Your task to perform on an android device: add a contact Image 0: 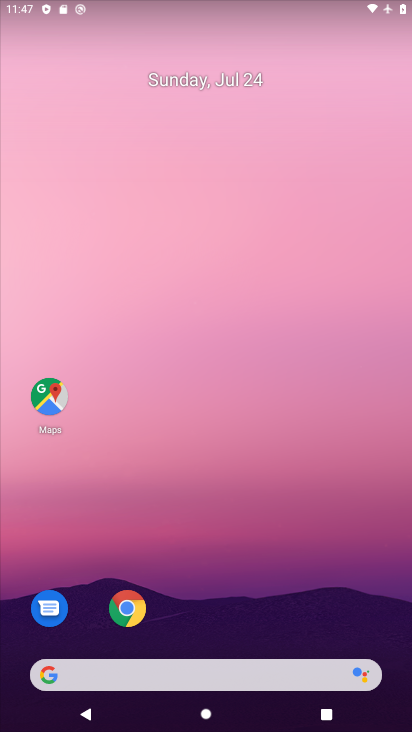
Step 0: press home button
Your task to perform on an android device: add a contact Image 1: 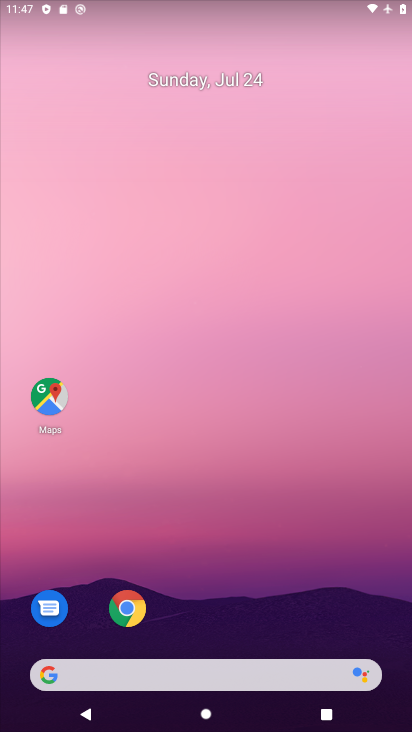
Step 1: drag from (234, 658) to (299, 128)
Your task to perform on an android device: add a contact Image 2: 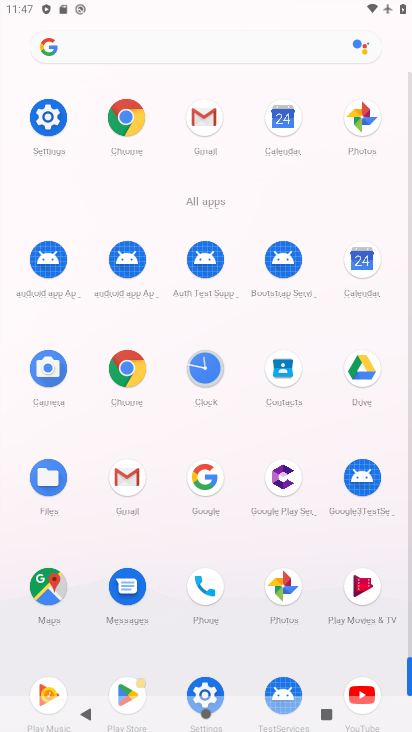
Step 2: click (286, 381)
Your task to perform on an android device: add a contact Image 3: 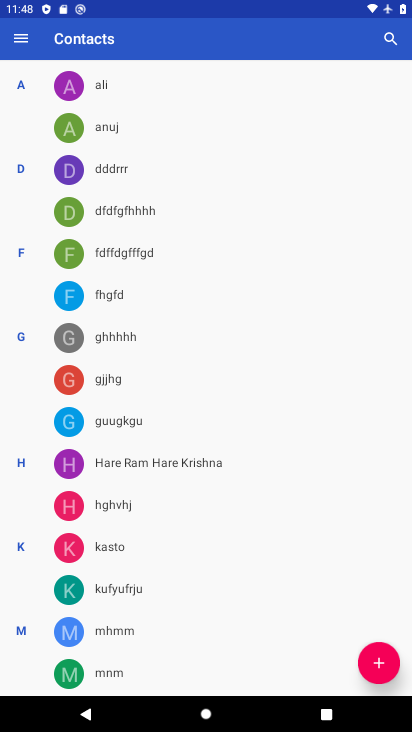
Step 3: click (383, 653)
Your task to perform on an android device: add a contact Image 4: 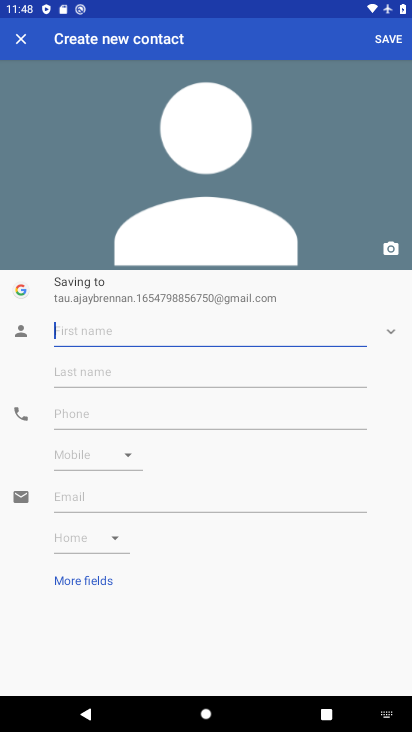
Step 4: type "uytzdxfcvbn"
Your task to perform on an android device: add a contact Image 5: 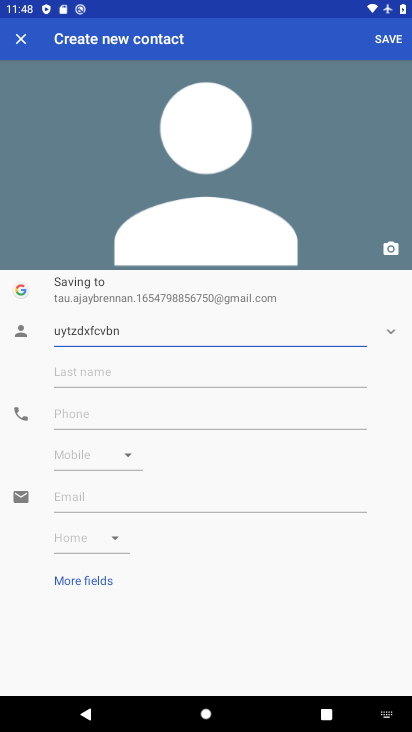
Step 5: click (140, 417)
Your task to perform on an android device: add a contact Image 6: 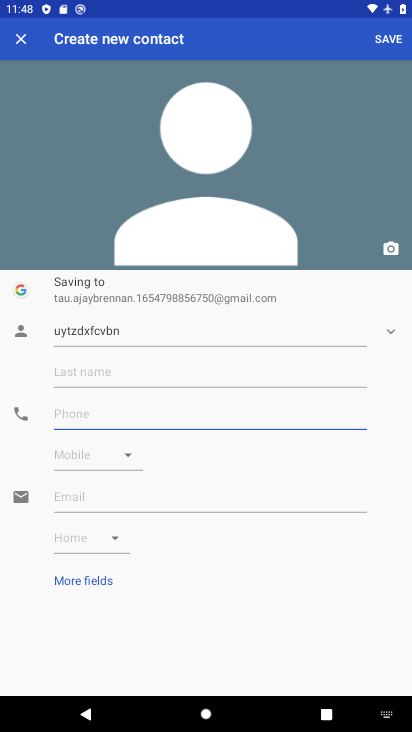
Step 6: type "987654"
Your task to perform on an android device: add a contact Image 7: 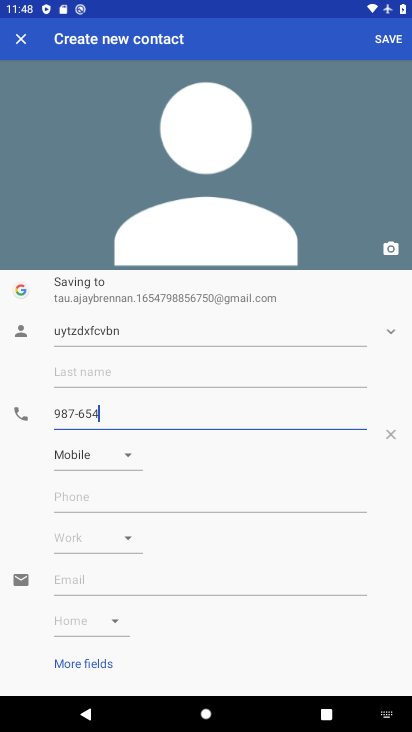
Step 7: click (400, 44)
Your task to perform on an android device: add a contact Image 8: 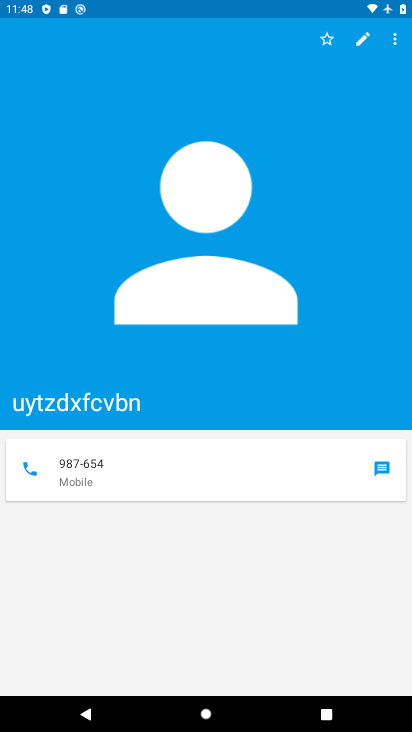
Step 8: task complete